Your task to perform on an android device: Go to CNN.com Image 0: 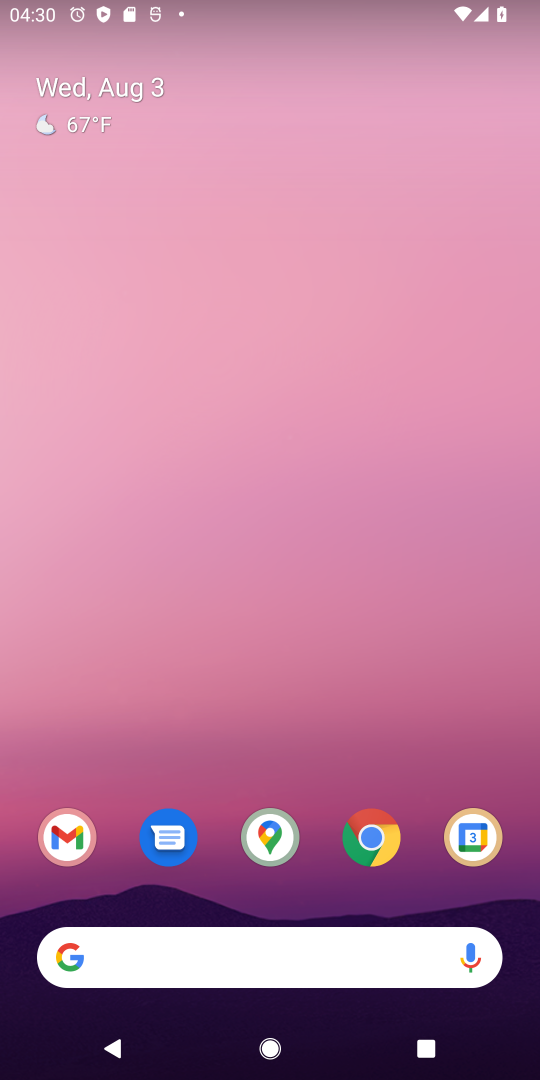
Step 0: click (372, 841)
Your task to perform on an android device: Go to CNN.com Image 1: 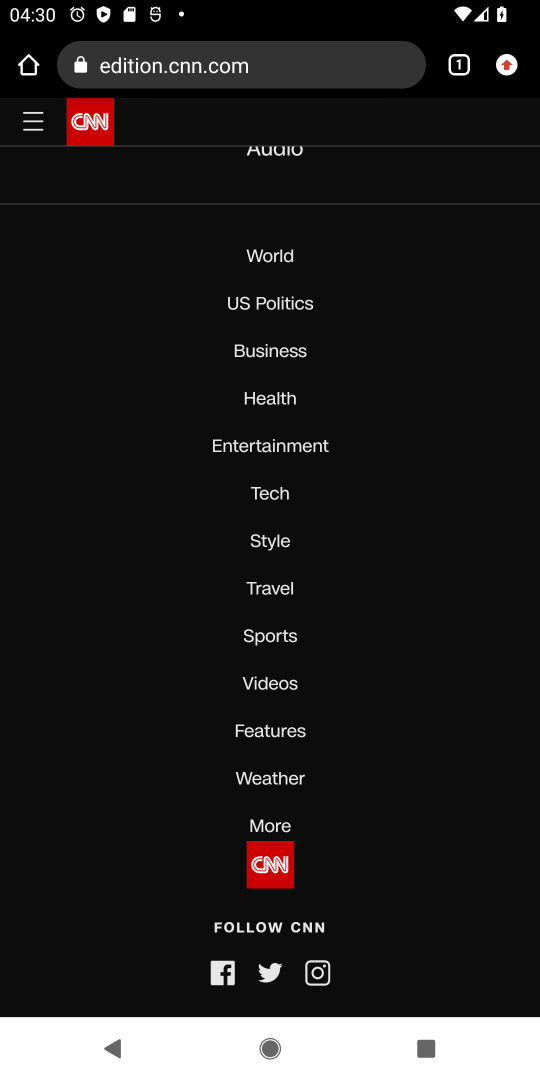
Step 1: task complete